Your task to perform on an android device: Open settings on Google Maps Image 0: 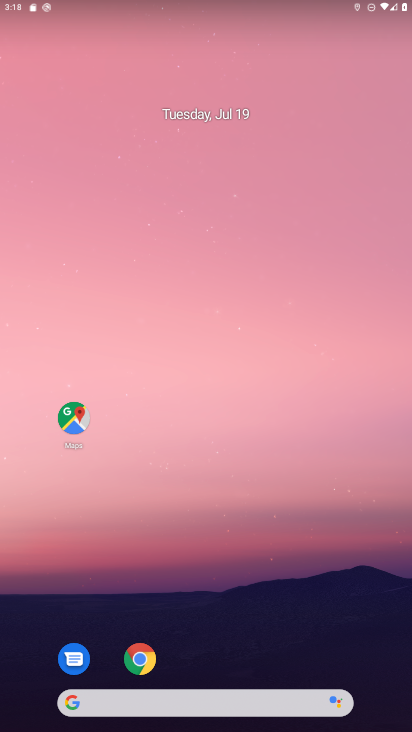
Step 0: click (76, 421)
Your task to perform on an android device: Open settings on Google Maps Image 1: 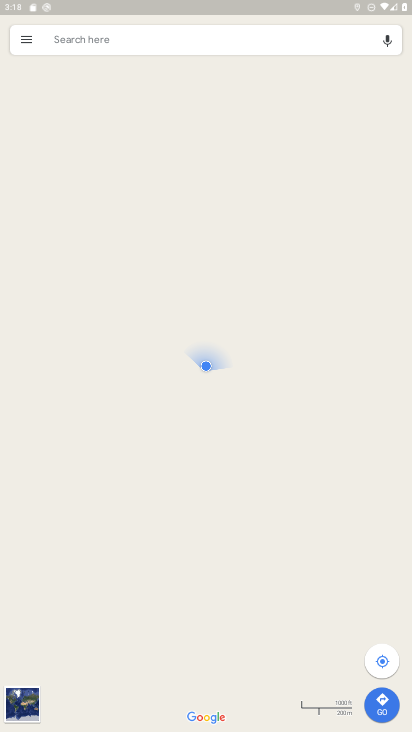
Step 1: click (29, 42)
Your task to perform on an android device: Open settings on Google Maps Image 2: 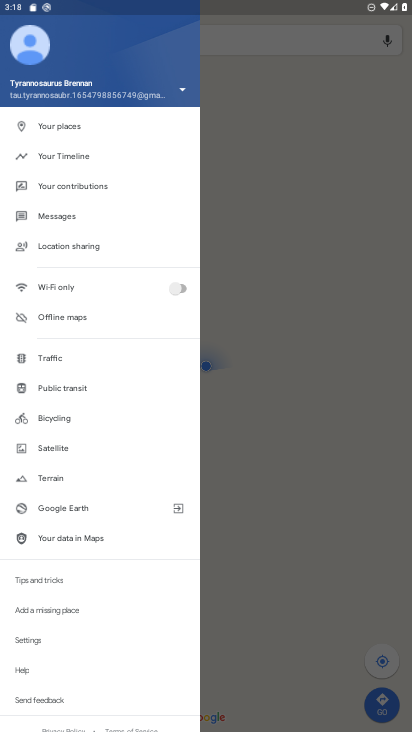
Step 2: click (53, 644)
Your task to perform on an android device: Open settings on Google Maps Image 3: 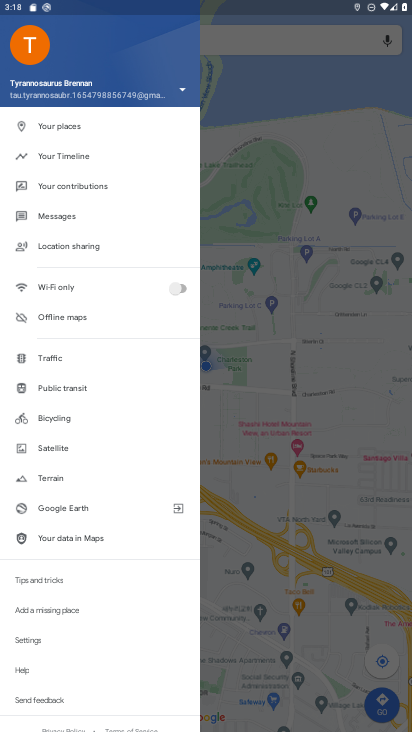
Step 3: click (29, 638)
Your task to perform on an android device: Open settings on Google Maps Image 4: 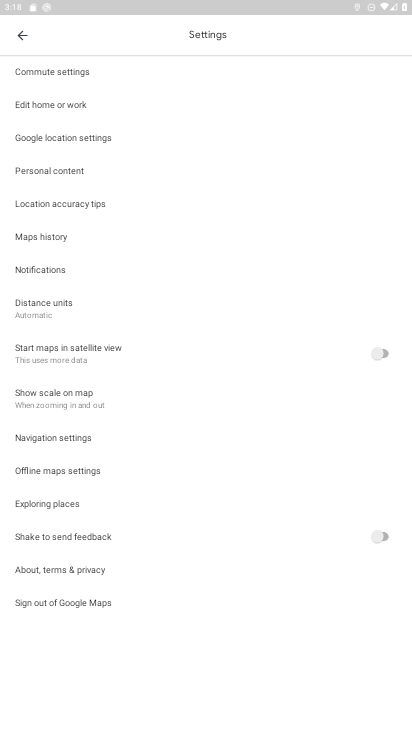
Step 4: task complete